Your task to perform on an android device: check storage Image 0: 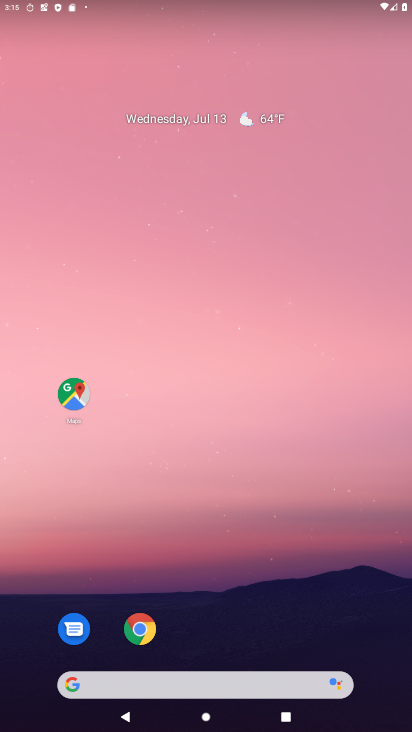
Step 0: drag from (201, 680) to (275, 6)
Your task to perform on an android device: check storage Image 1: 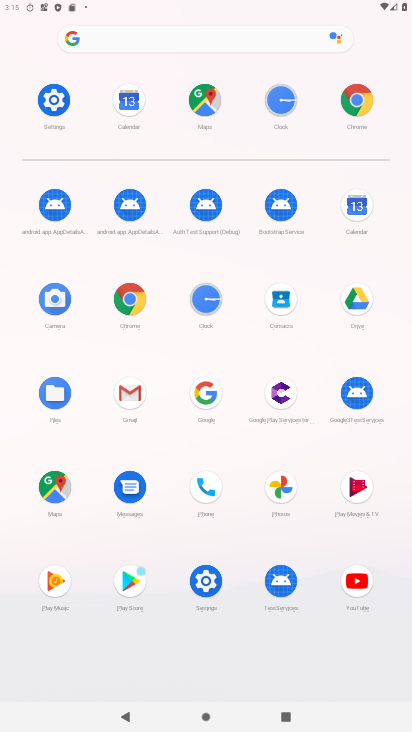
Step 1: click (67, 101)
Your task to perform on an android device: check storage Image 2: 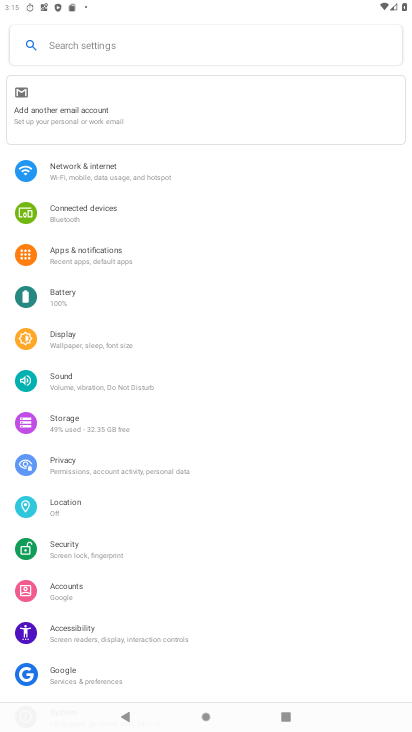
Step 2: click (98, 427)
Your task to perform on an android device: check storage Image 3: 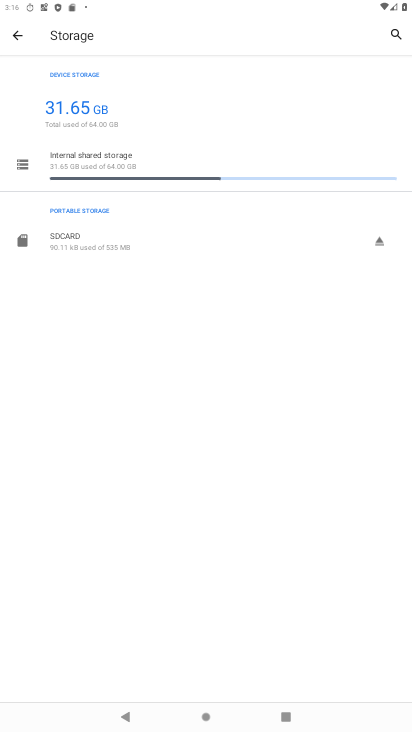
Step 3: task complete